Your task to perform on an android device: uninstall "HBO Max: Stream TV & Movies" Image 0: 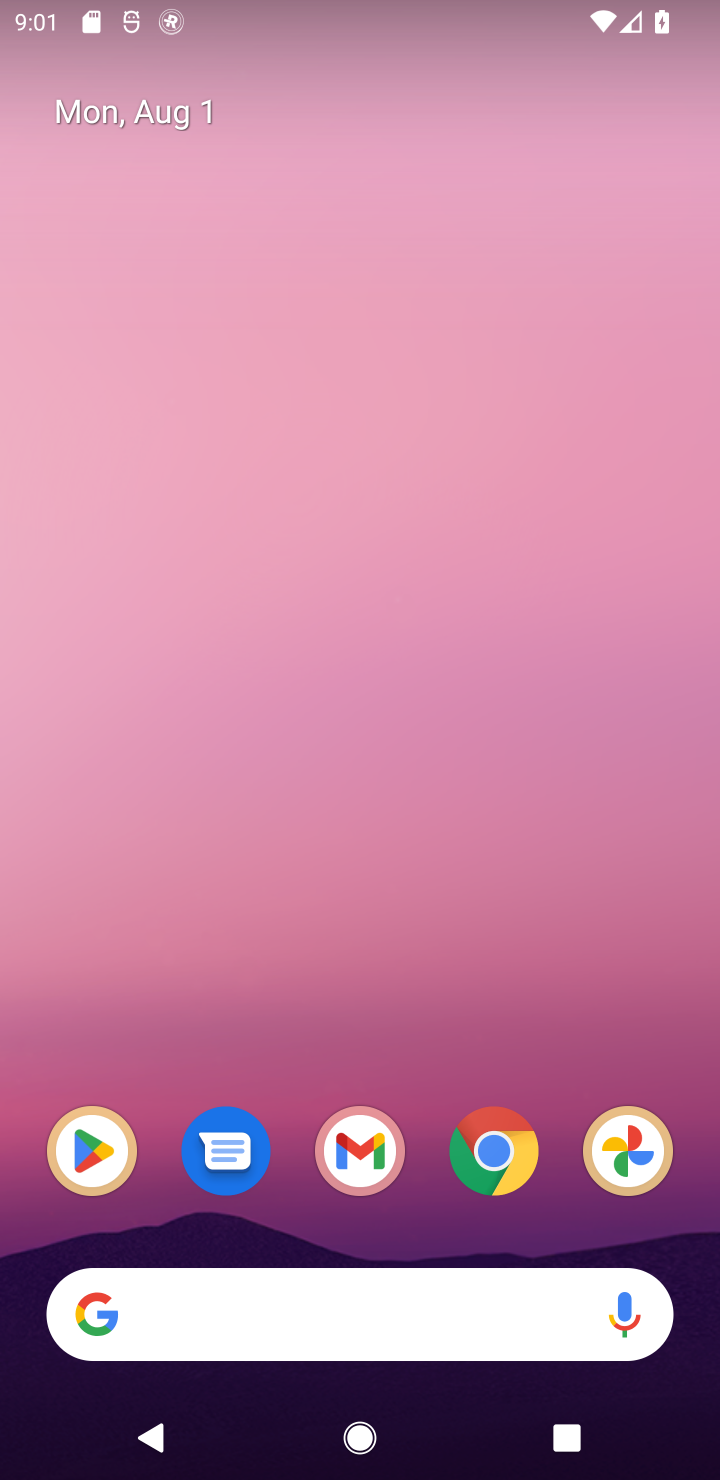
Step 0: click (125, 1149)
Your task to perform on an android device: uninstall "HBO Max: Stream TV & Movies" Image 1: 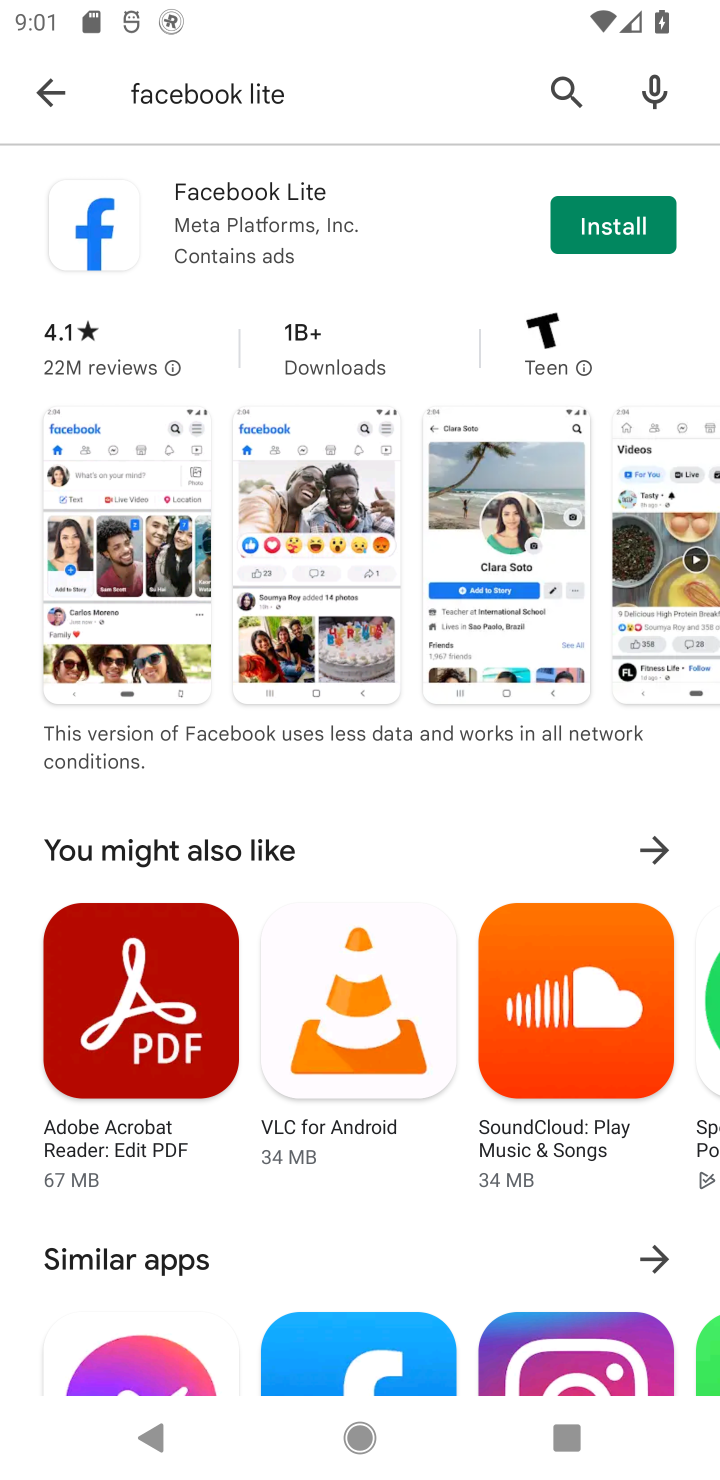
Step 1: click (543, 95)
Your task to perform on an android device: uninstall "HBO Max: Stream TV & Movies" Image 2: 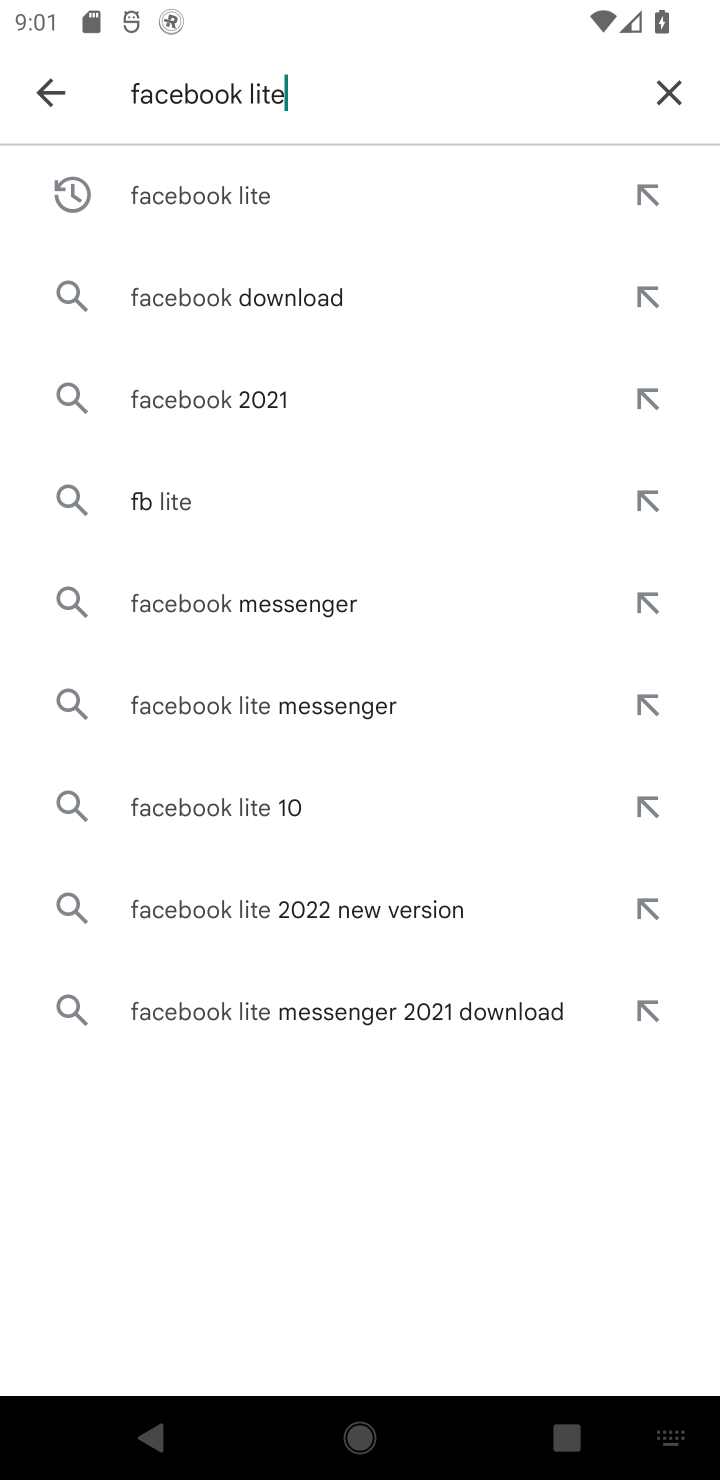
Step 2: click (657, 93)
Your task to perform on an android device: uninstall "HBO Max: Stream TV & Movies" Image 3: 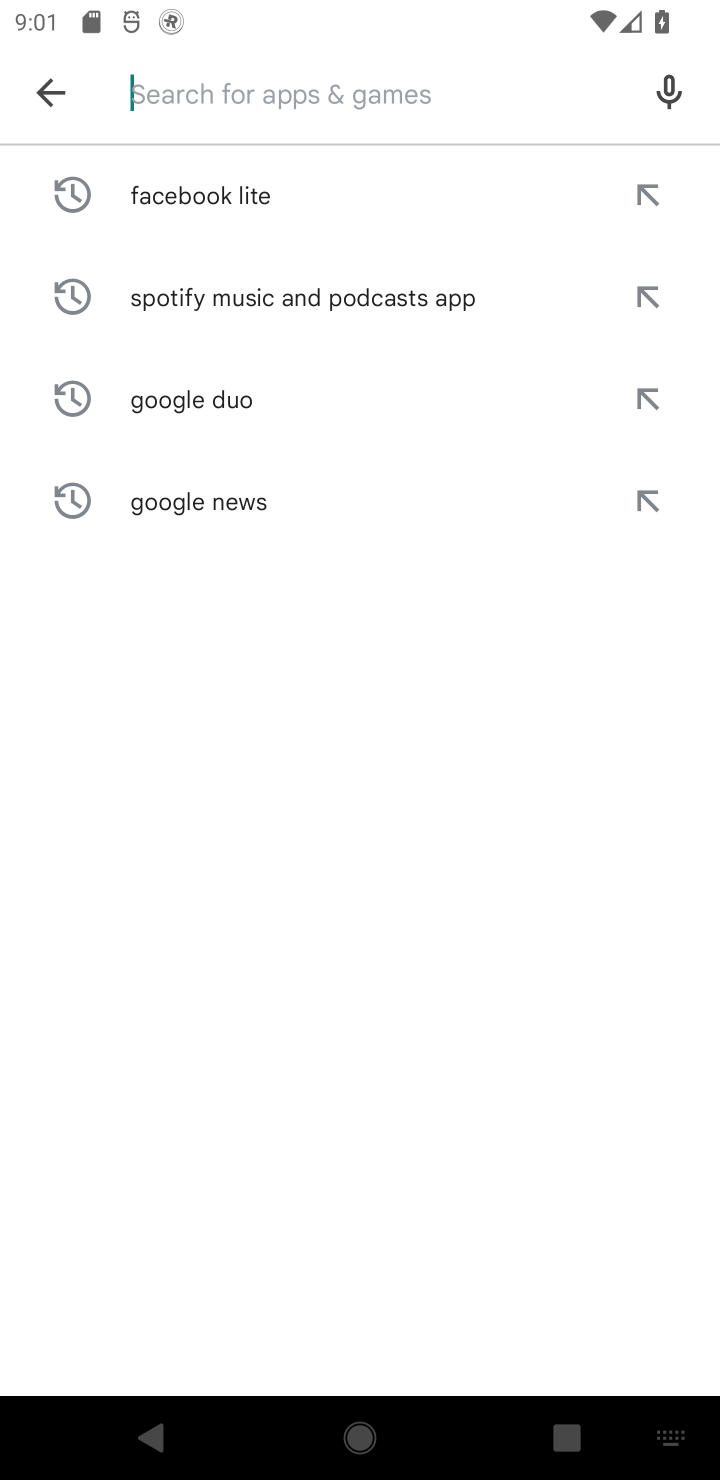
Step 3: type "HBO Max: Stream TV & Movies"
Your task to perform on an android device: uninstall "HBO Max: Stream TV & Movies" Image 4: 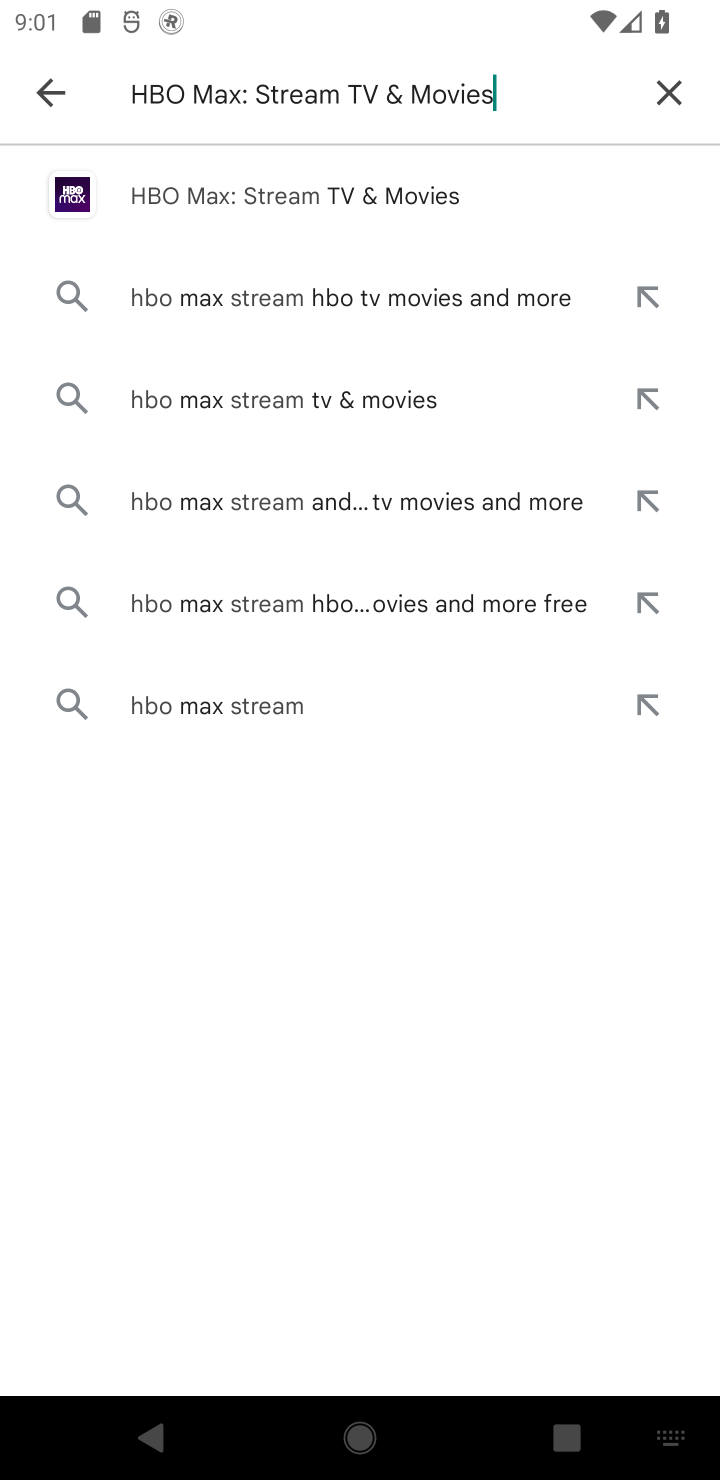
Step 4: type ""
Your task to perform on an android device: uninstall "HBO Max: Stream TV & Movies" Image 5: 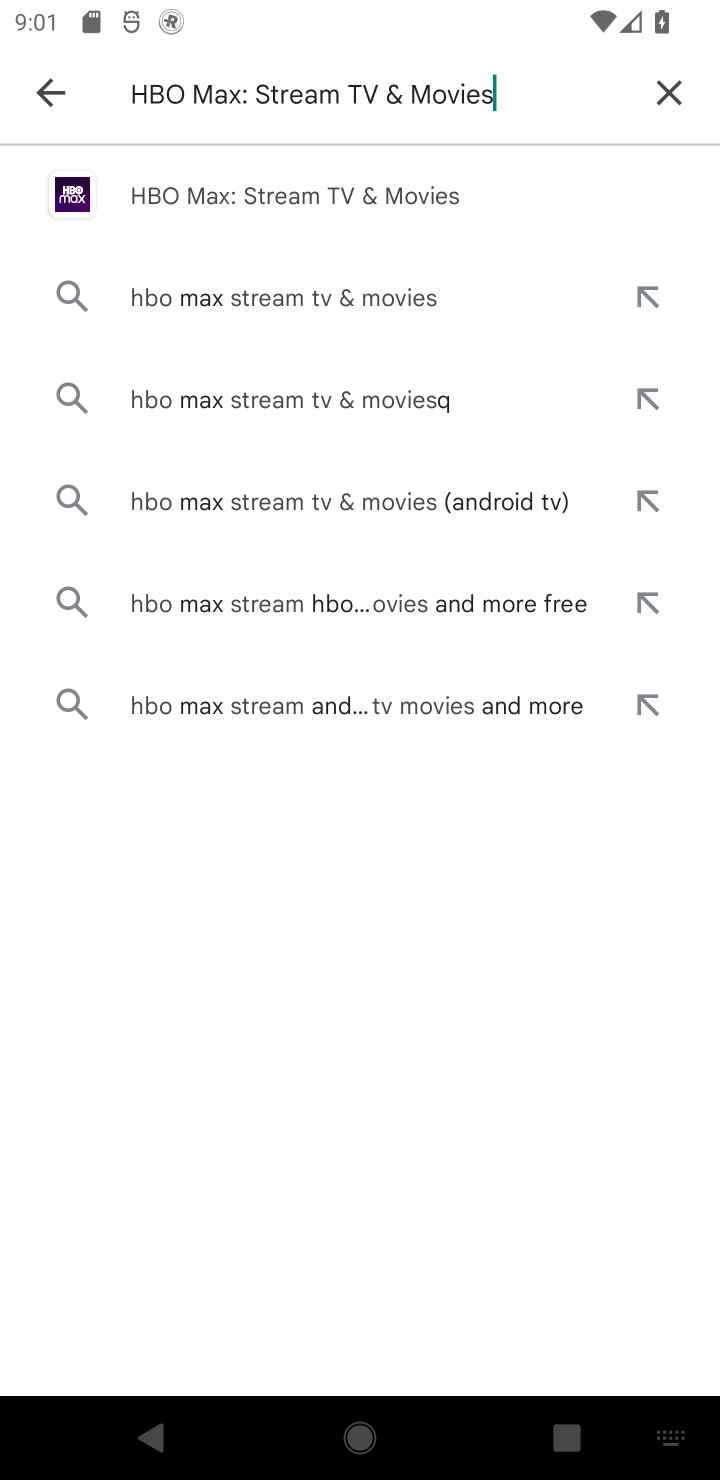
Step 5: click (306, 211)
Your task to perform on an android device: uninstall "HBO Max: Stream TV & Movies" Image 6: 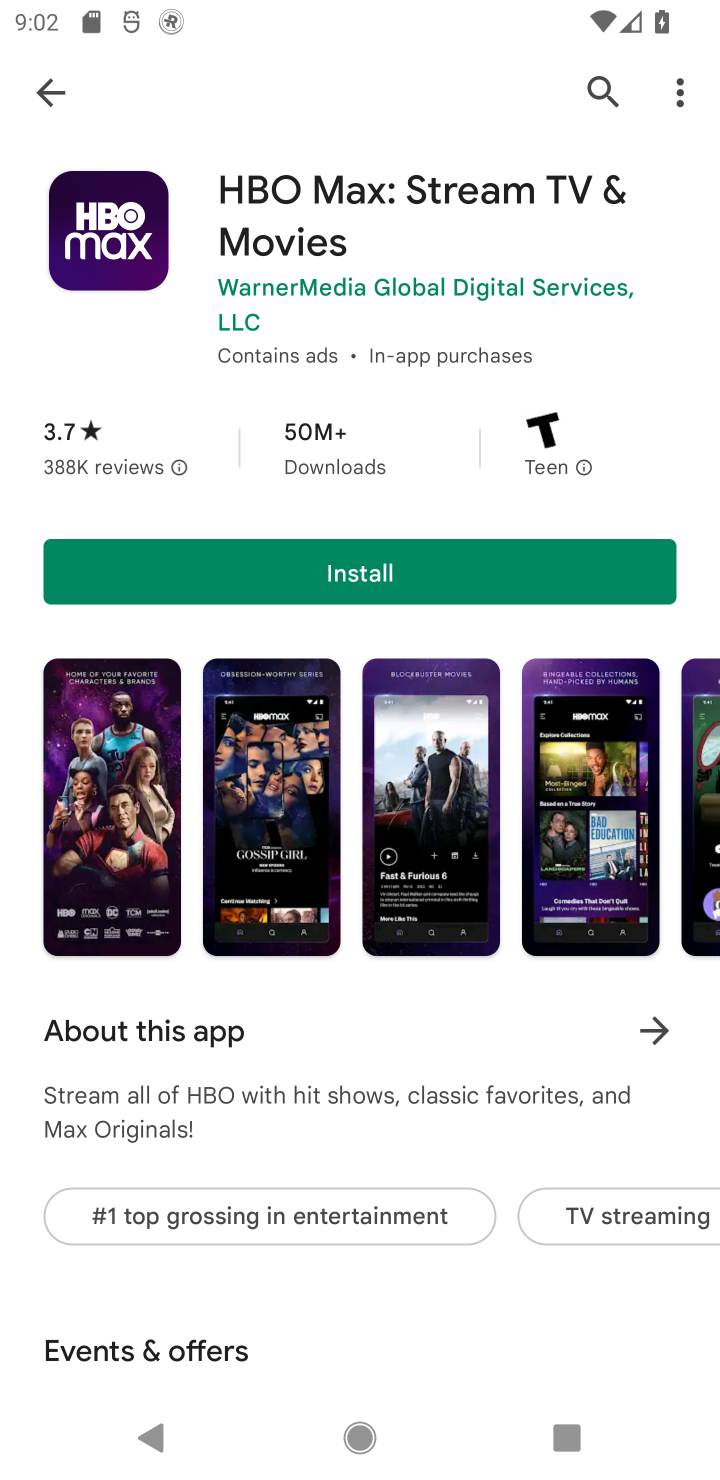
Step 6: task complete